Your task to perform on an android device: toggle airplane mode Image 0: 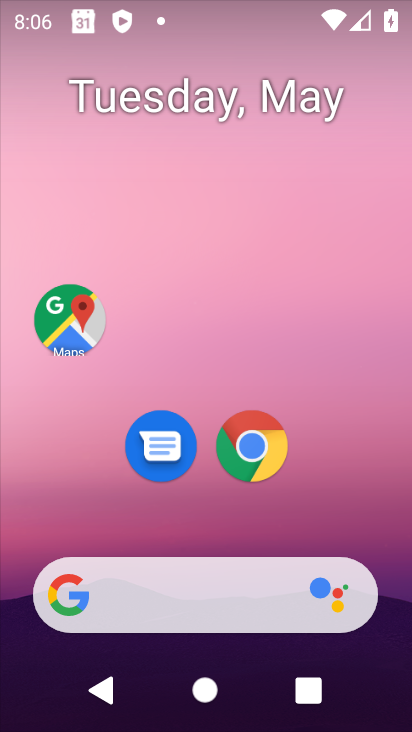
Step 0: drag from (366, 526) to (319, 16)
Your task to perform on an android device: toggle airplane mode Image 1: 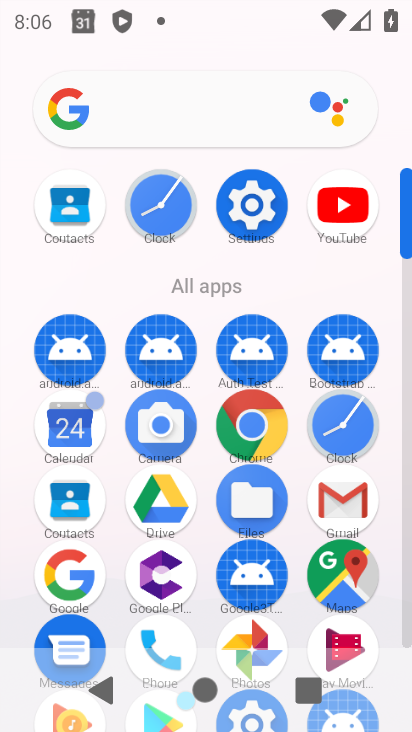
Step 1: click (253, 216)
Your task to perform on an android device: toggle airplane mode Image 2: 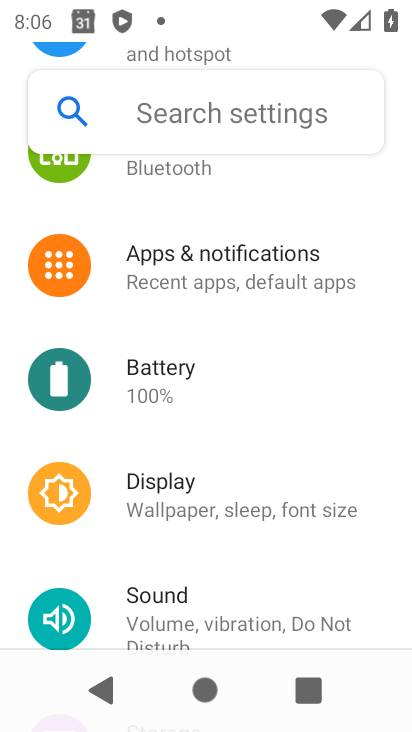
Step 2: drag from (253, 216) to (261, 475)
Your task to perform on an android device: toggle airplane mode Image 3: 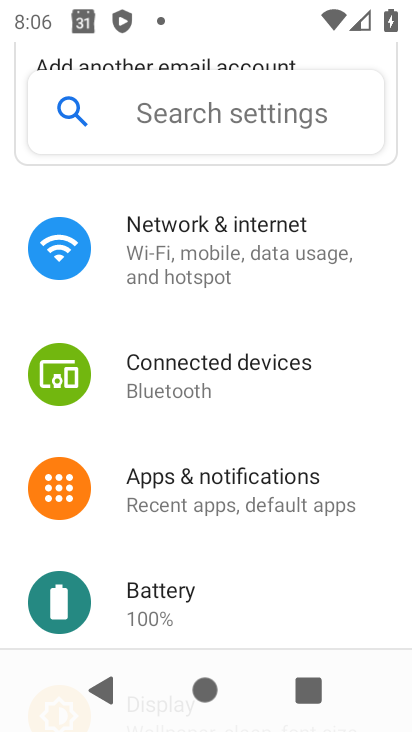
Step 3: click (170, 268)
Your task to perform on an android device: toggle airplane mode Image 4: 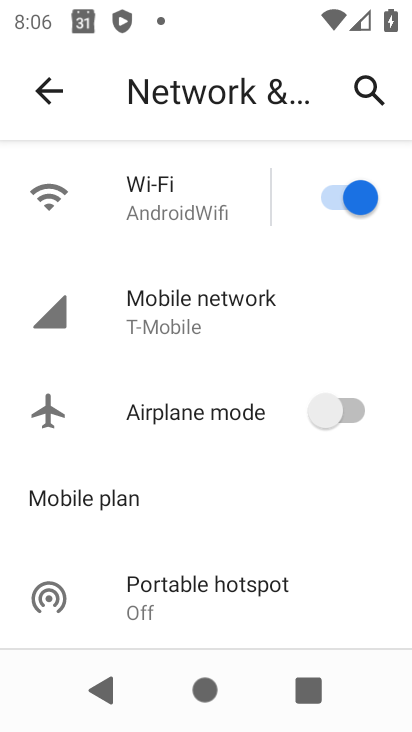
Step 4: click (324, 421)
Your task to perform on an android device: toggle airplane mode Image 5: 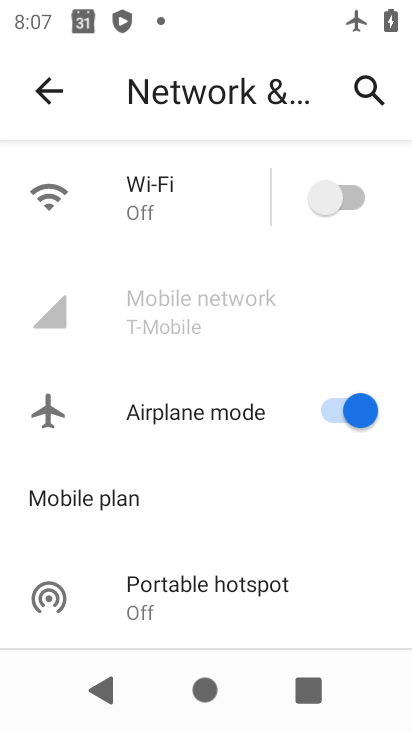
Step 5: task complete